Your task to perform on an android device: toggle priority inbox in the gmail app Image 0: 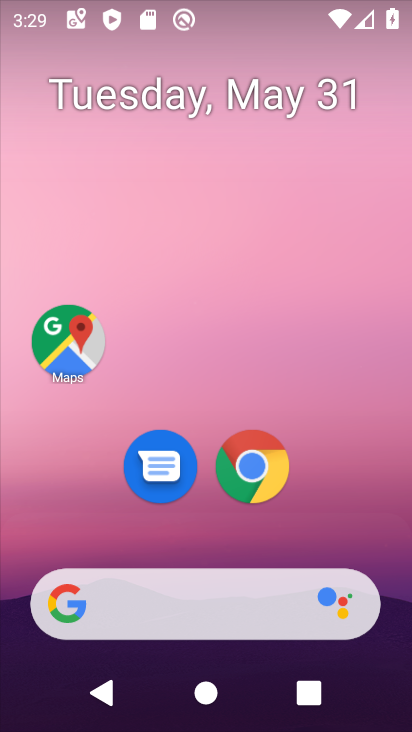
Step 0: drag from (221, 403) to (261, 9)
Your task to perform on an android device: toggle priority inbox in the gmail app Image 1: 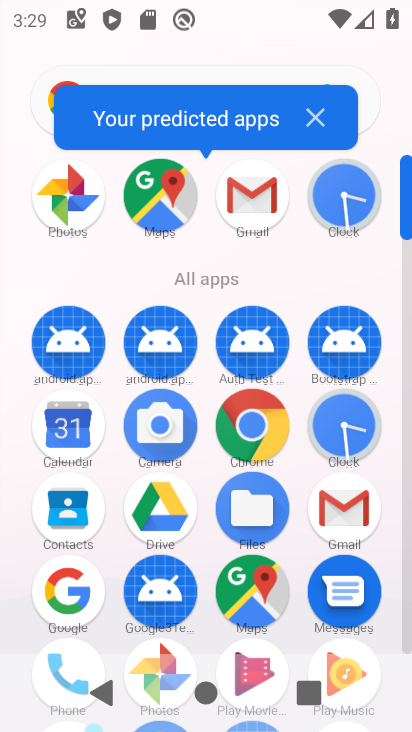
Step 1: click (258, 206)
Your task to perform on an android device: toggle priority inbox in the gmail app Image 2: 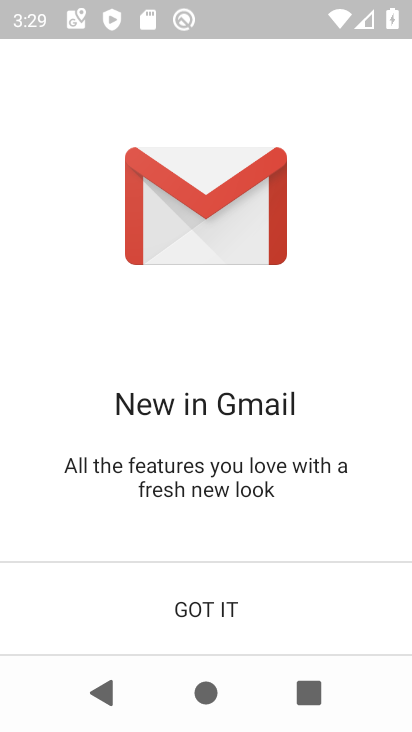
Step 2: click (177, 585)
Your task to perform on an android device: toggle priority inbox in the gmail app Image 3: 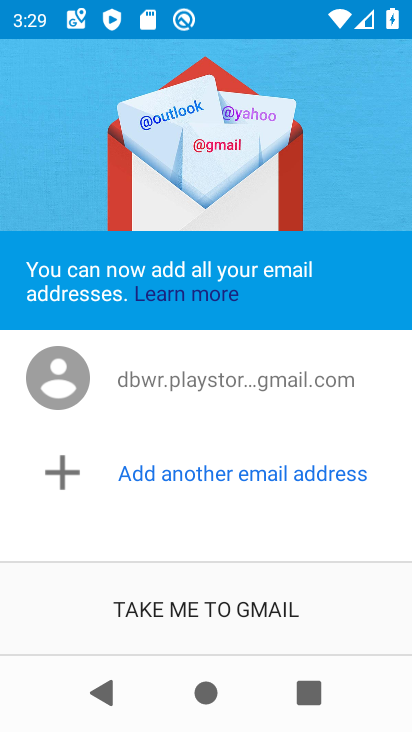
Step 3: click (205, 604)
Your task to perform on an android device: toggle priority inbox in the gmail app Image 4: 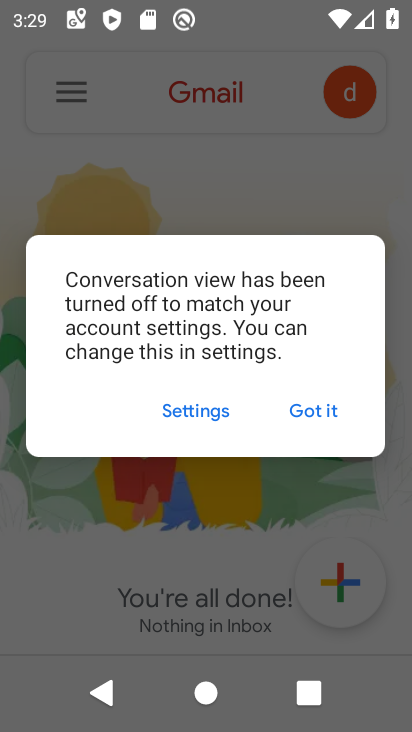
Step 4: click (302, 414)
Your task to perform on an android device: toggle priority inbox in the gmail app Image 5: 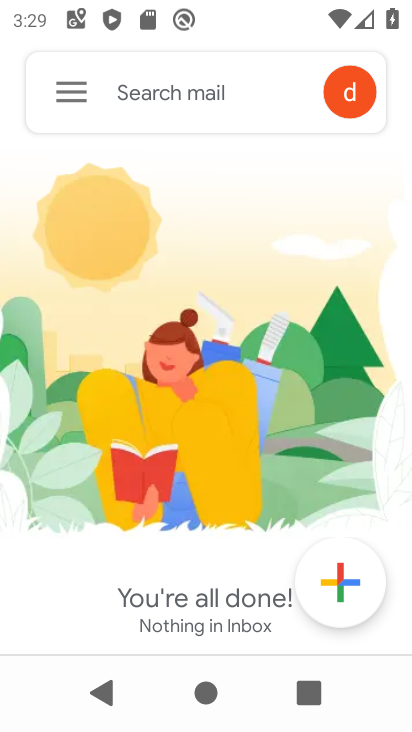
Step 5: click (64, 91)
Your task to perform on an android device: toggle priority inbox in the gmail app Image 6: 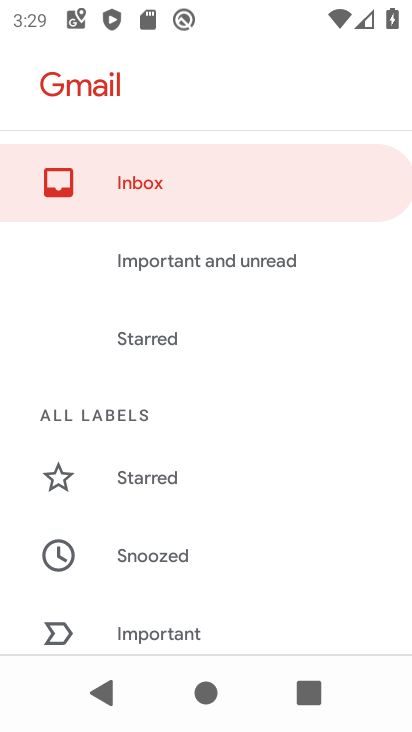
Step 6: drag from (200, 588) to (242, 39)
Your task to perform on an android device: toggle priority inbox in the gmail app Image 7: 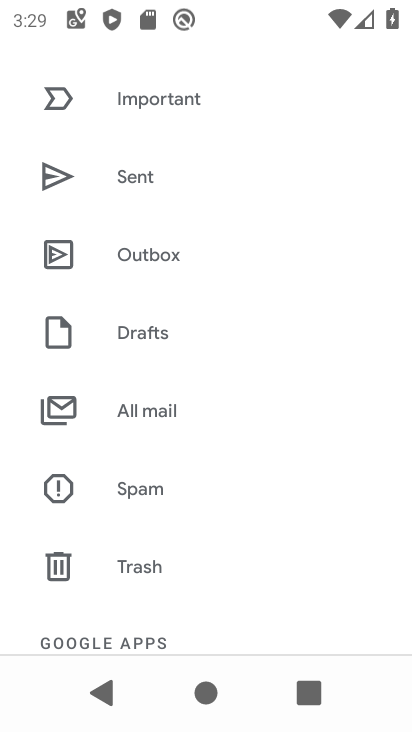
Step 7: drag from (149, 614) to (252, 27)
Your task to perform on an android device: toggle priority inbox in the gmail app Image 8: 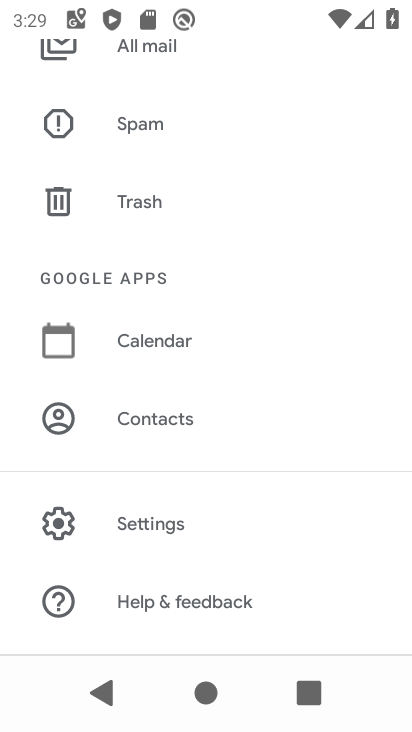
Step 8: click (147, 523)
Your task to perform on an android device: toggle priority inbox in the gmail app Image 9: 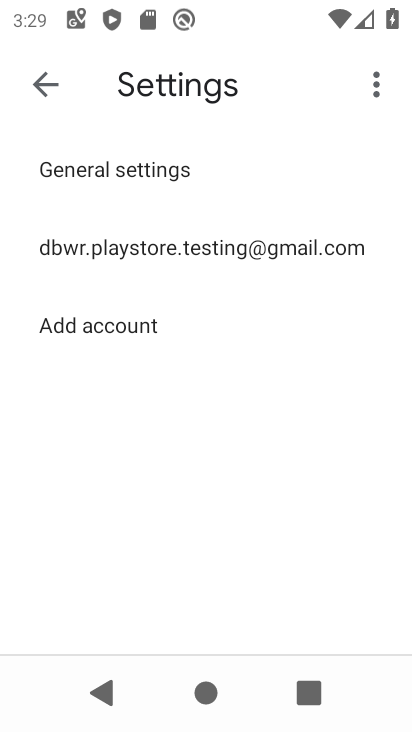
Step 9: click (139, 242)
Your task to perform on an android device: toggle priority inbox in the gmail app Image 10: 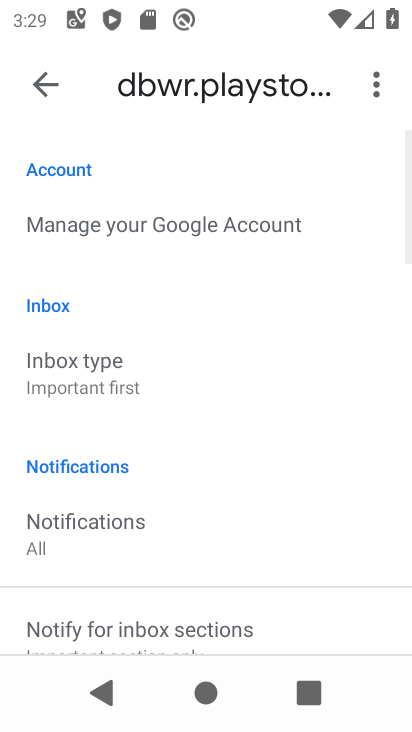
Step 10: click (62, 384)
Your task to perform on an android device: toggle priority inbox in the gmail app Image 11: 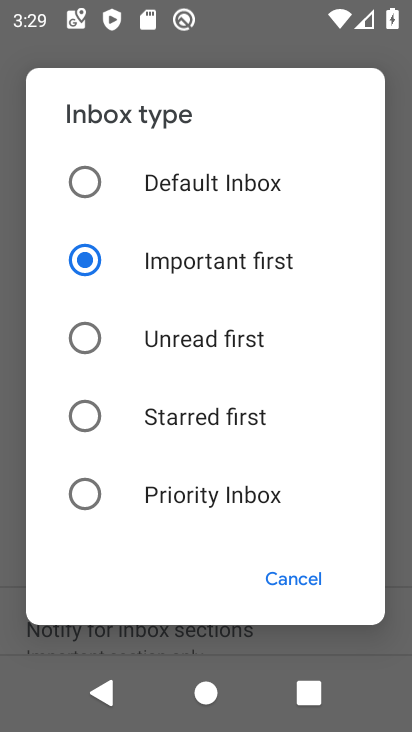
Step 11: click (93, 487)
Your task to perform on an android device: toggle priority inbox in the gmail app Image 12: 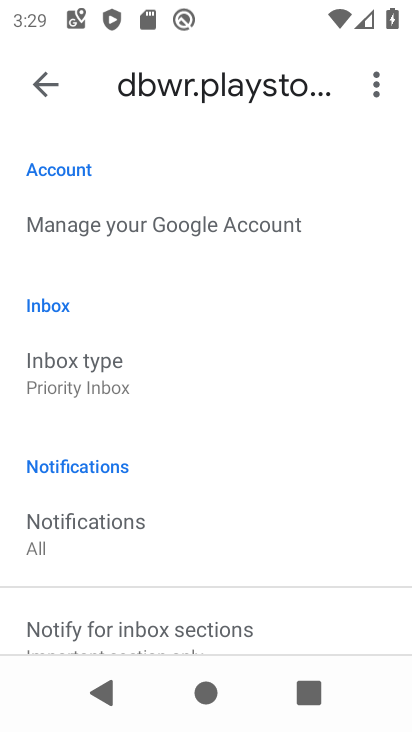
Step 12: task complete